Your task to perform on an android device: find which apps use the phone's location Image 0: 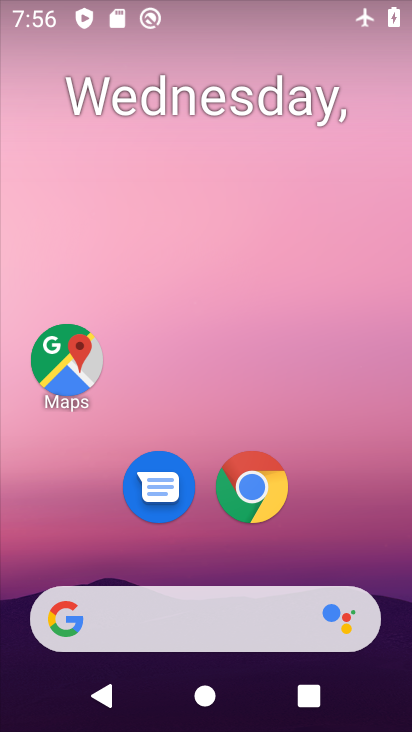
Step 0: drag from (350, 571) to (371, 11)
Your task to perform on an android device: find which apps use the phone's location Image 1: 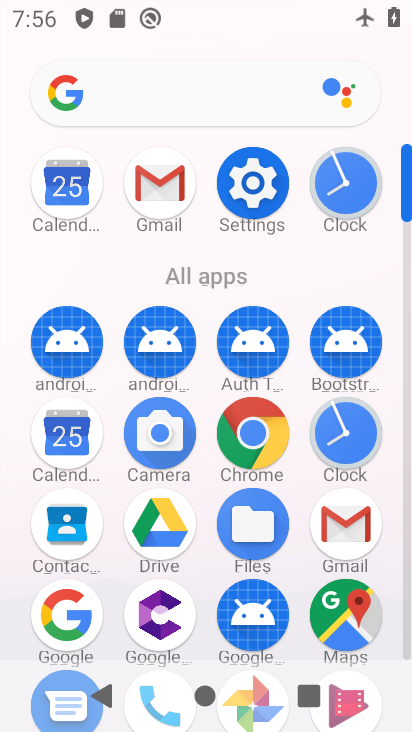
Step 1: click (245, 190)
Your task to perform on an android device: find which apps use the phone's location Image 2: 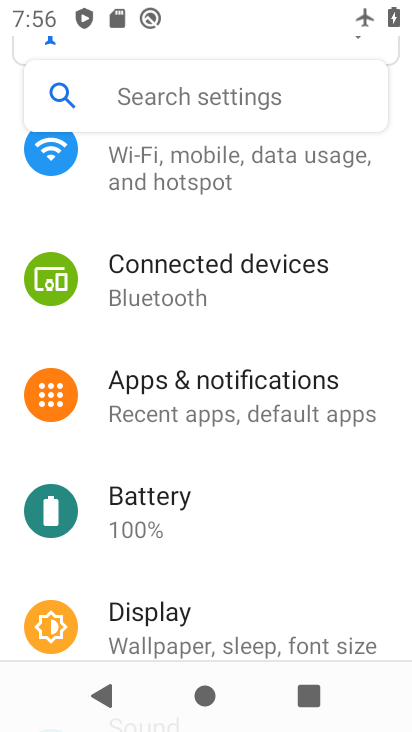
Step 2: drag from (293, 539) to (313, 151)
Your task to perform on an android device: find which apps use the phone's location Image 3: 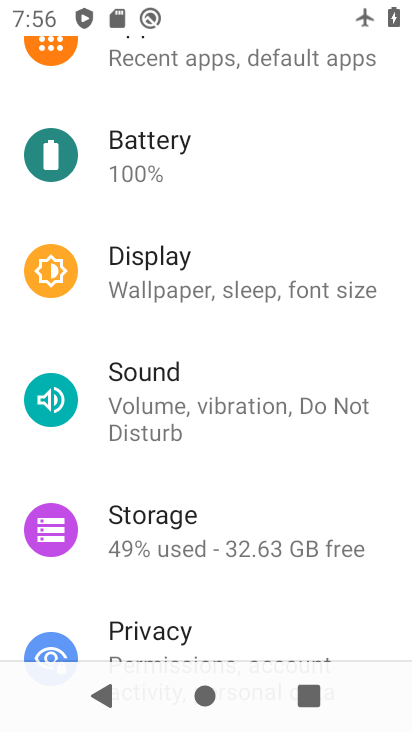
Step 3: drag from (251, 460) to (265, 168)
Your task to perform on an android device: find which apps use the phone's location Image 4: 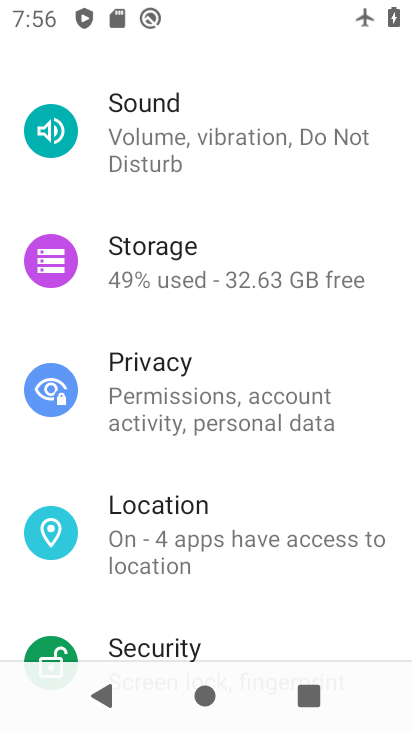
Step 4: click (157, 534)
Your task to perform on an android device: find which apps use the phone's location Image 5: 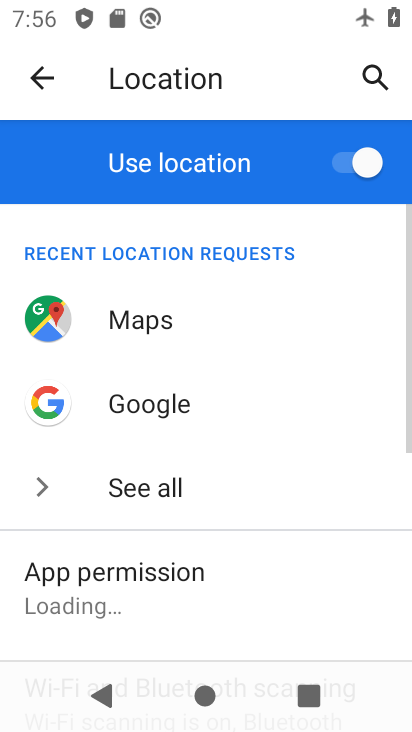
Step 5: drag from (240, 513) to (251, 246)
Your task to perform on an android device: find which apps use the phone's location Image 6: 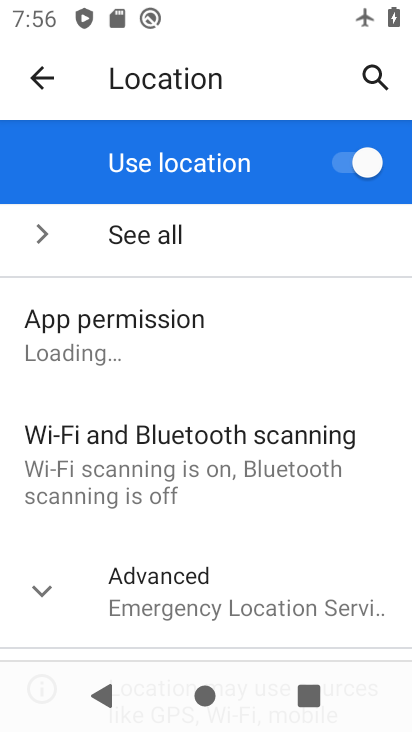
Step 6: click (94, 330)
Your task to perform on an android device: find which apps use the phone's location Image 7: 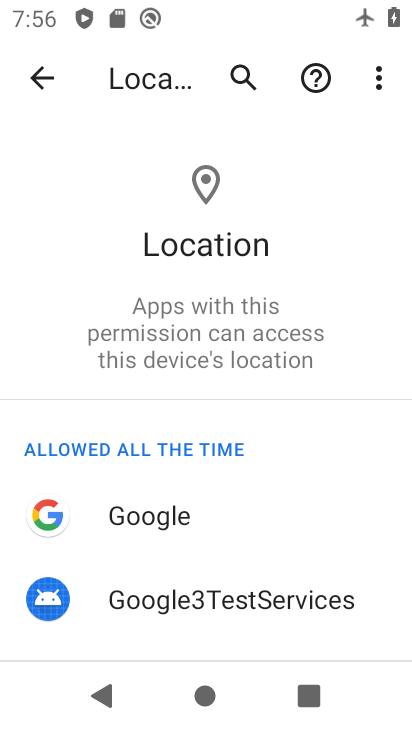
Step 7: task complete